Your task to perform on an android device: change notification settings in the gmail app Image 0: 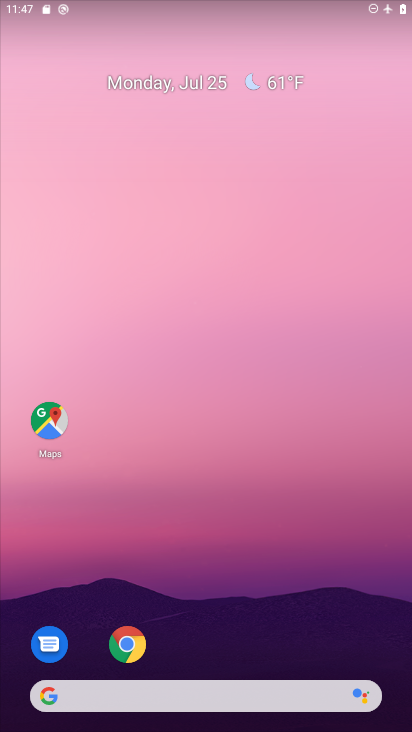
Step 0: drag from (301, 601) to (275, 239)
Your task to perform on an android device: change notification settings in the gmail app Image 1: 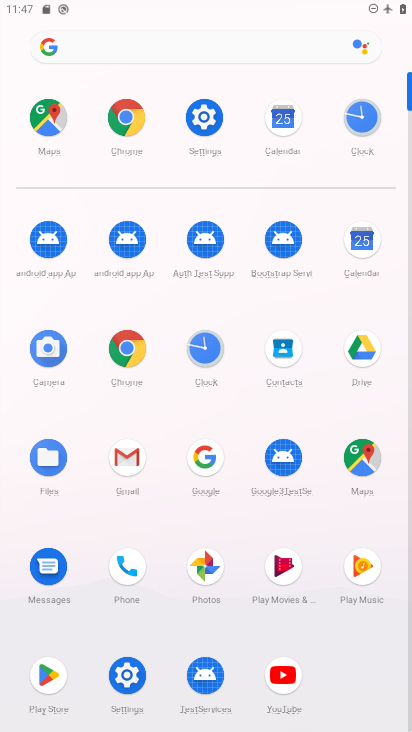
Step 1: click (131, 459)
Your task to perform on an android device: change notification settings in the gmail app Image 2: 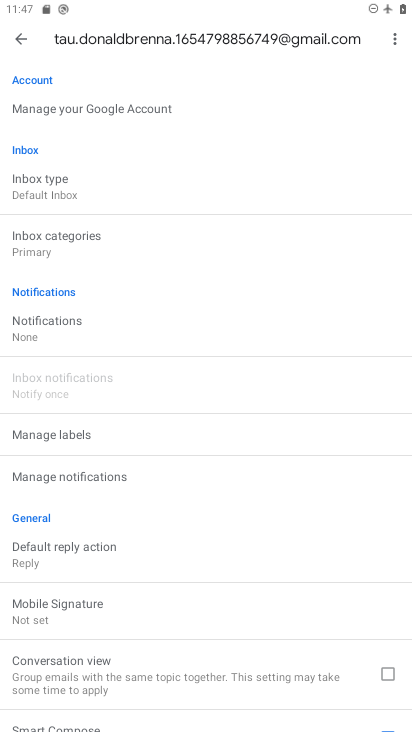
Step 2: click (93, 344)
Your task to perform on an android device: change notification settings in the gmail app Image 3: 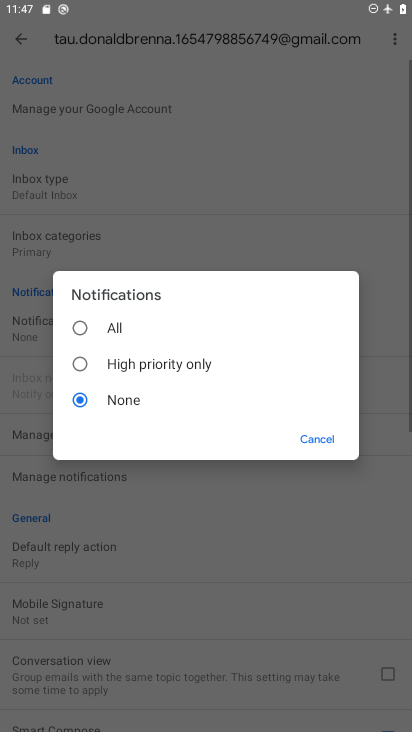
Step 3: click (107, 335)
Your task to perform on an android device: change notification settings in the gmail app Image 4: 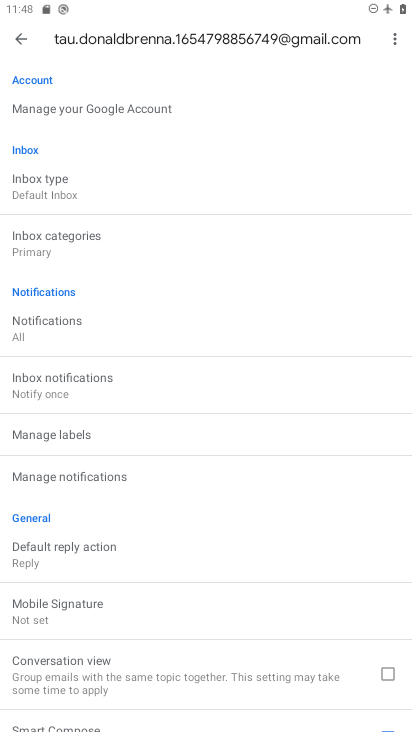
Step 4: task complete